Your task to perform on an android device: Open display settings Image 0: 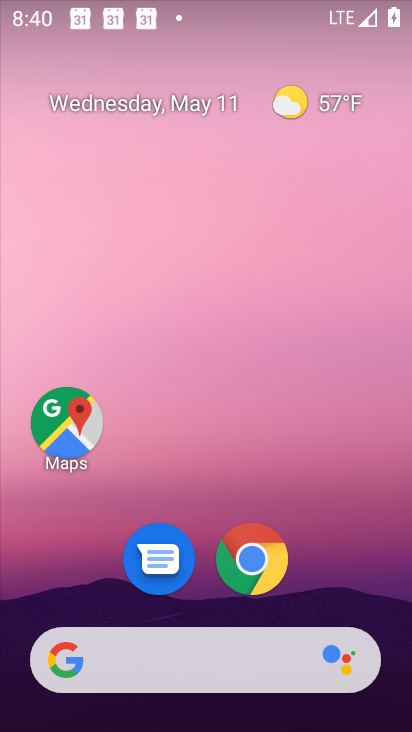
Step 0: press home button
Your task to perform on an android device: Open display settings Image 1: 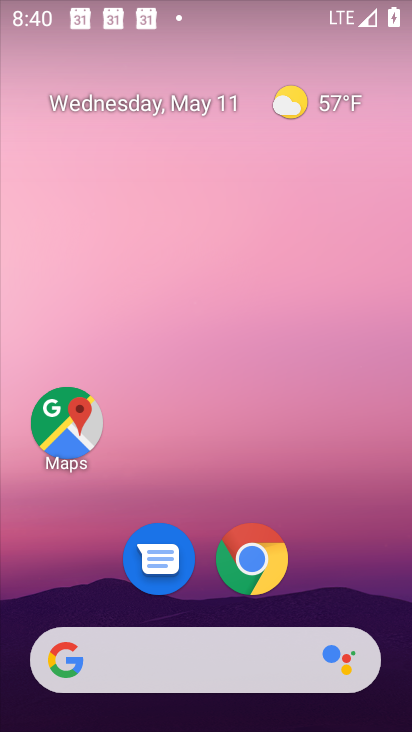
Step 1: drag from (350, 576) to (277, 16)
Your task to perform on an android device: Open display settings Image 2: 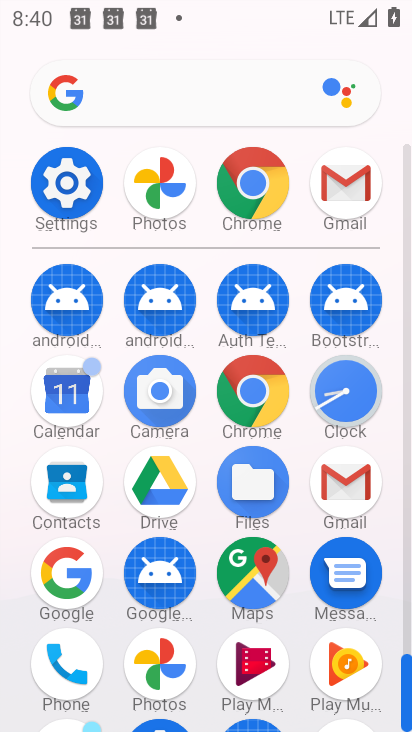
Step 2: click (90, 183)
Your task to perform on an android device: Open display settings Image 3: 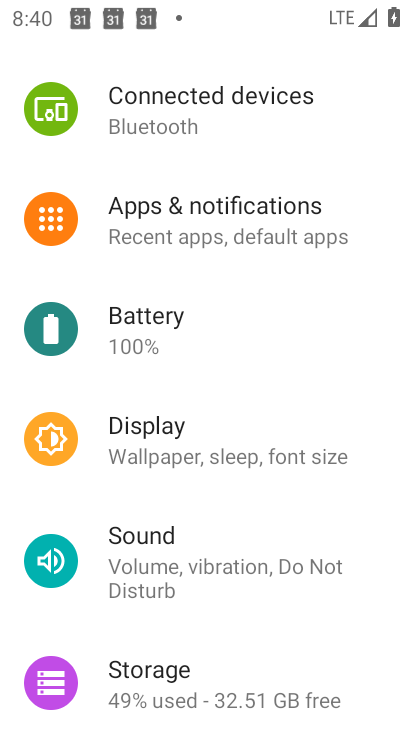
Step 3: click (94, 413)
Your task to perform on an android device: Open display settings Image 4: 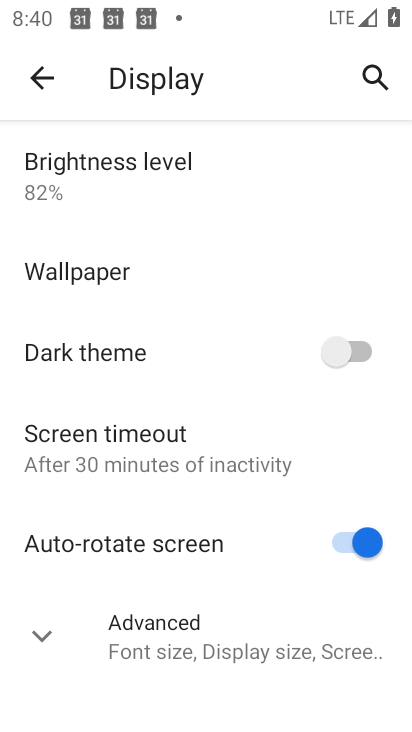
Step 4: task complete